Your task to perform on an android device: find photos in the google photos app Image 0: 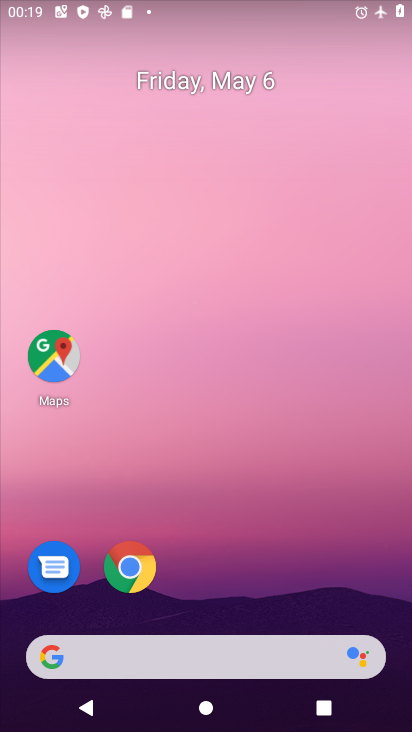
Step 0: drag from (228, 556) to (194, 201)
Your task to perform on an android device: find photos in the google photos app Image 1: 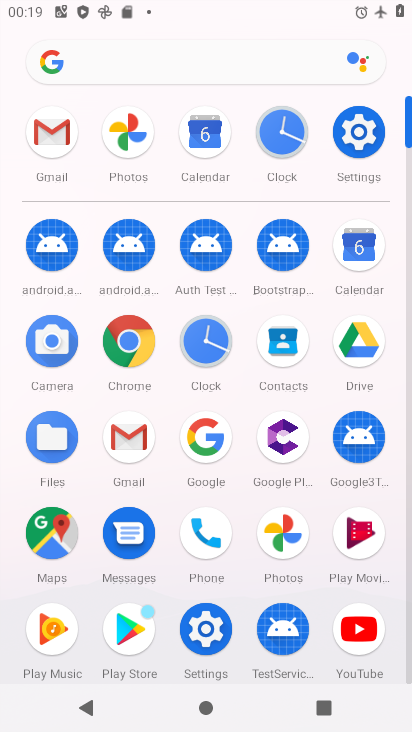
Step 1: click (286, 532)
Your task to perform on an android device: find photos in the google photos app Image 2: 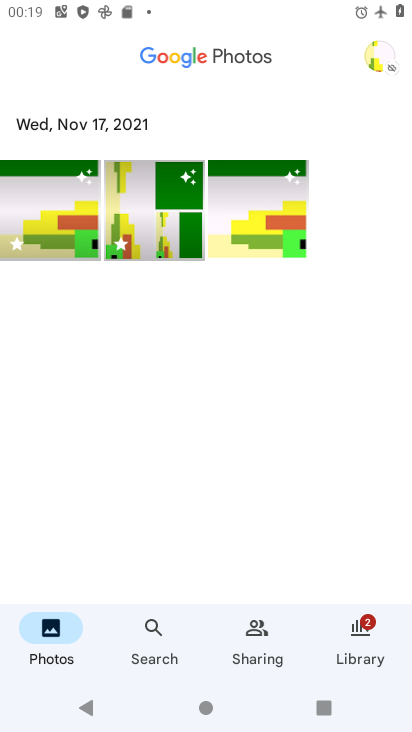
Step 2: click (163, 615)
Your task to perform on an android device: find photos in the google photos app Image 3: 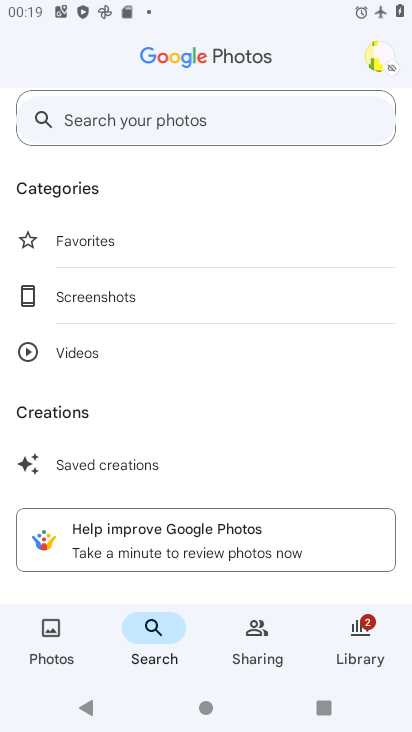
Step 3: click (164, 114)
Your task to perform on an android device: find photos in the google photos app Image 4: 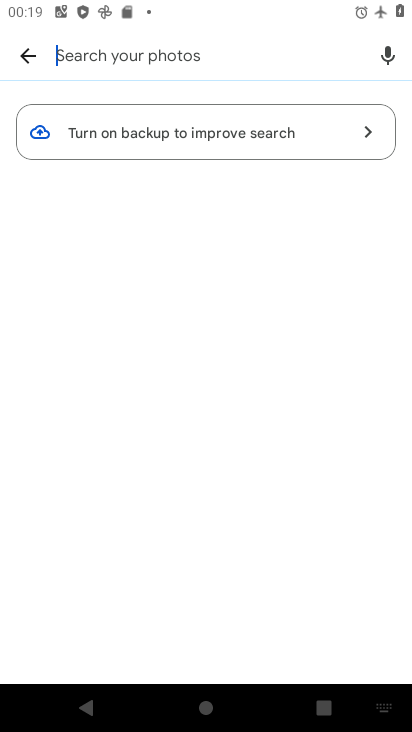
Step 4: type "aa"
Your task to perform on an android device: find photos in the google photos app Image 5: 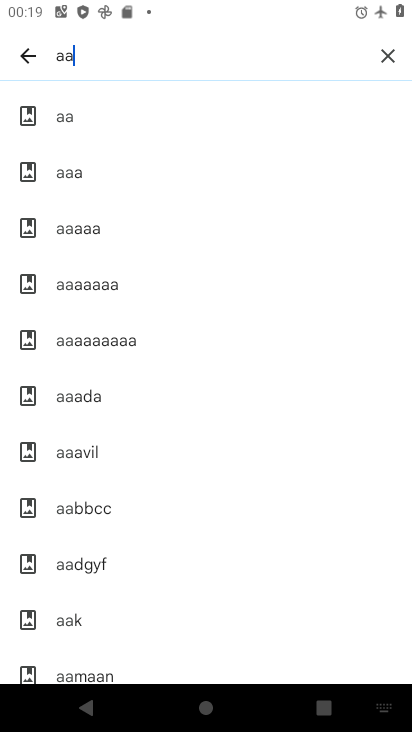
Step 5: click (79, 284)
Your task to perform on an android device: find photos in the google photos app Image 6: 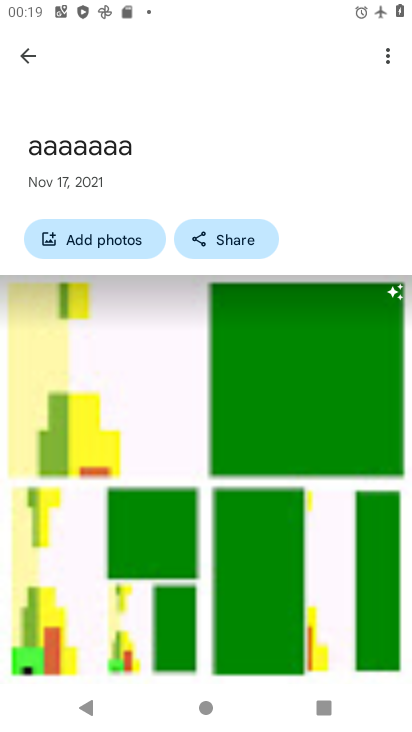
Step 6: drag from (320, 514) to (270, 203)
Your task to perform on an android device: find photos in the google photos app Image 7: 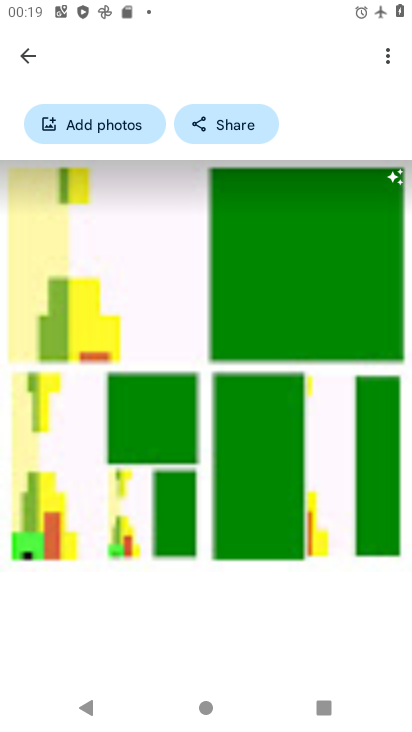
Step 7: click (287, 264)
Your task to perform on an android device: find photos in the google photos app Image 8: 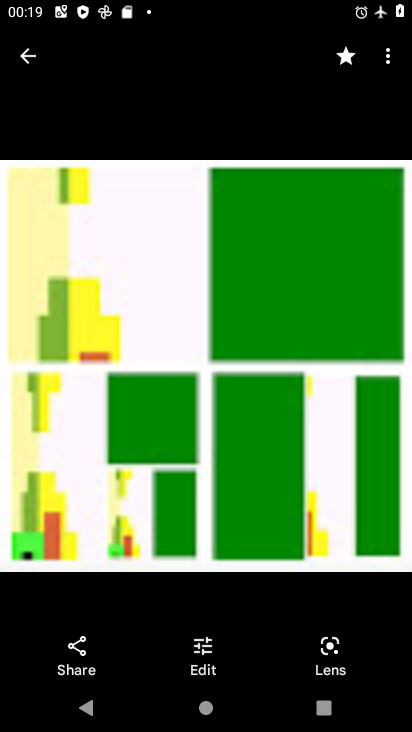
Step 8: task complete